Your task to perform on an android device: turn off notifications in google photos Image 0: 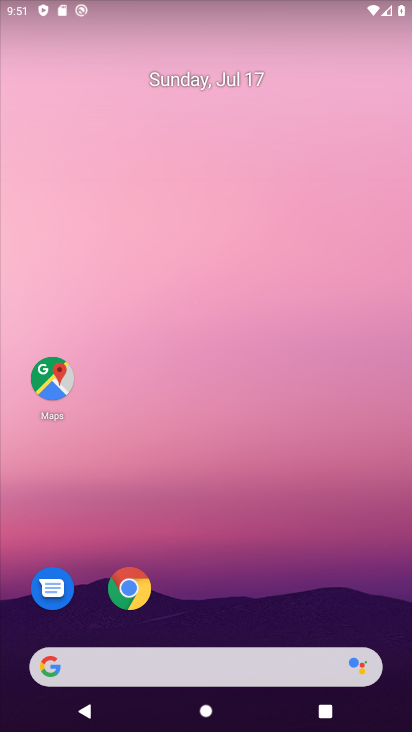
Step 0: drag from (273, 609) to (206, 153)
Your task to perform on an android device: turn off notifications in google photos Image 1: 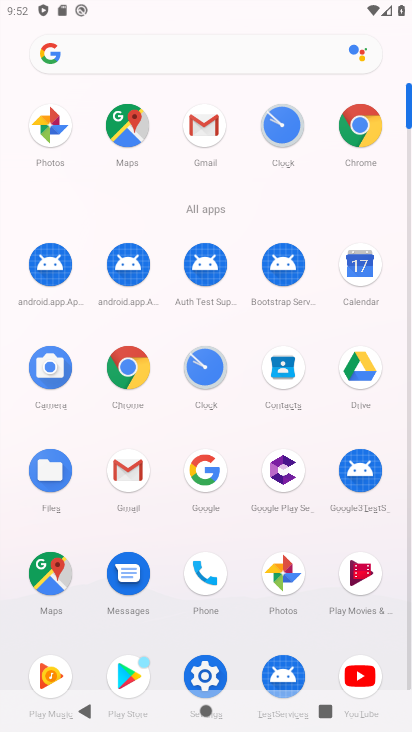
Step 1: click (47, 128)
Your task to perform on an android device: turn off notifications in google photos Image 2: 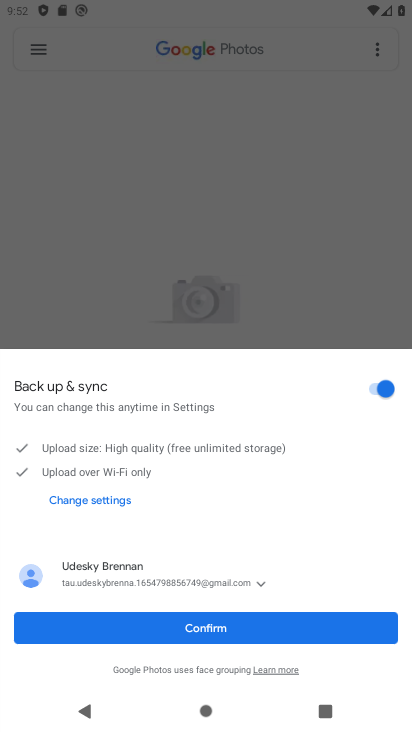
Step 2: click (40, 51)
Your task to perform on an android device: turn off notifications in google photos Image 3: 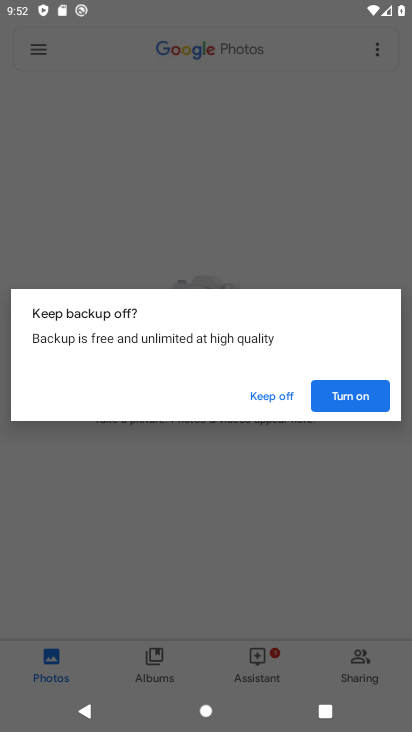
Step 3: click (360, 396)
Your task to perform on an android device: turn off notifications in google photos Image 4: 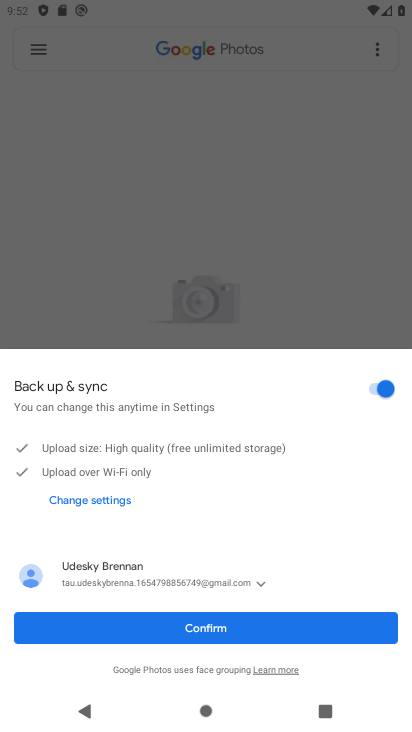
Step 4: click (323, 624)
Your task to perform on an android device: turn off notifications in google photos Image 5: 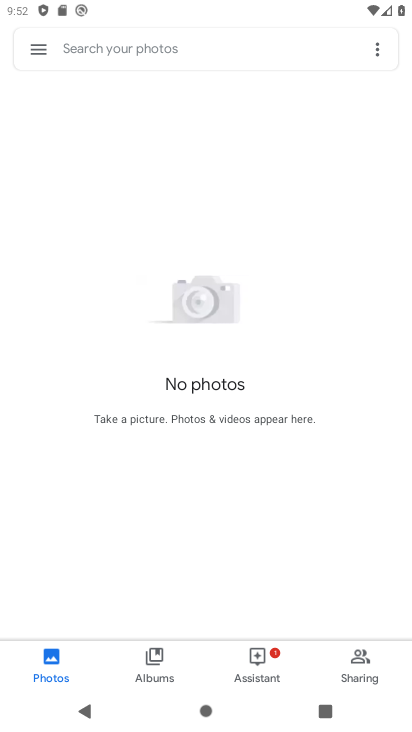
Step 5: click (42, 53)
Your task to perform on an android device: turn off notifications in google photos Image 6: 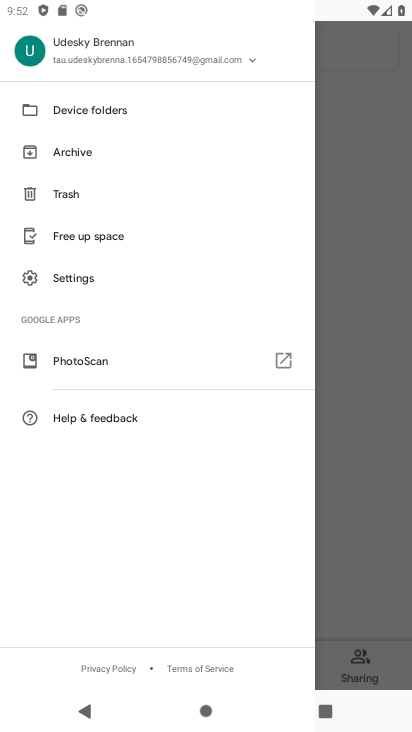
Step 6: click (86, 286)
Your task to perform on an android device: turn off notifications in google photos Image 7: 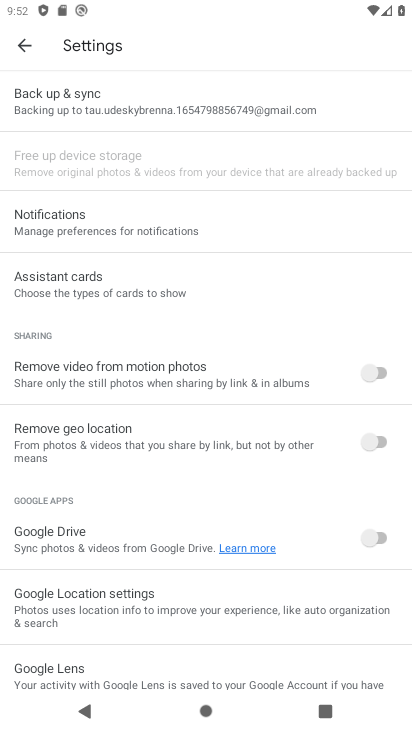
Step 7: click (107, 232)
Your task to perform on an android device: turn off notifications in google photos Image 8: 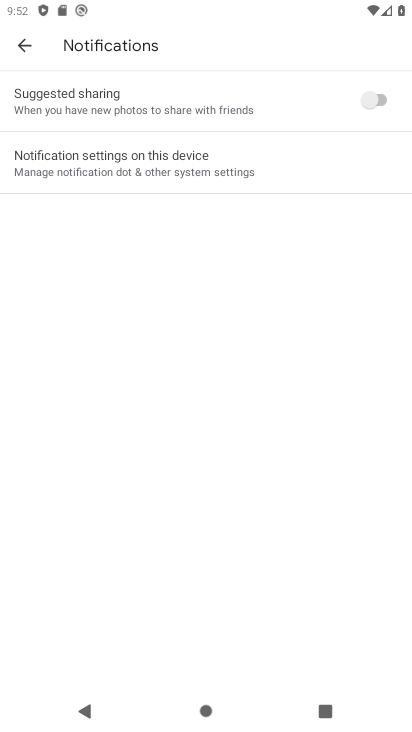
Step 8: click (234, 154)
Your task to perform on an android device: turn off notifications in google photos Image 9: 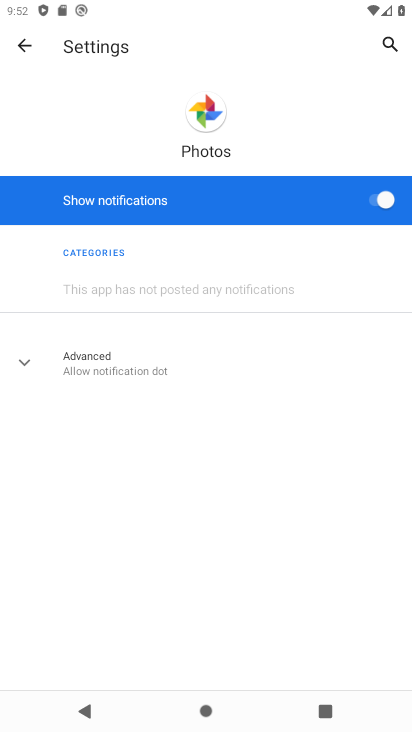
Step 9: click (382, 187)
Your task to perform on an android device: turn off notifications in google photos Image 10: 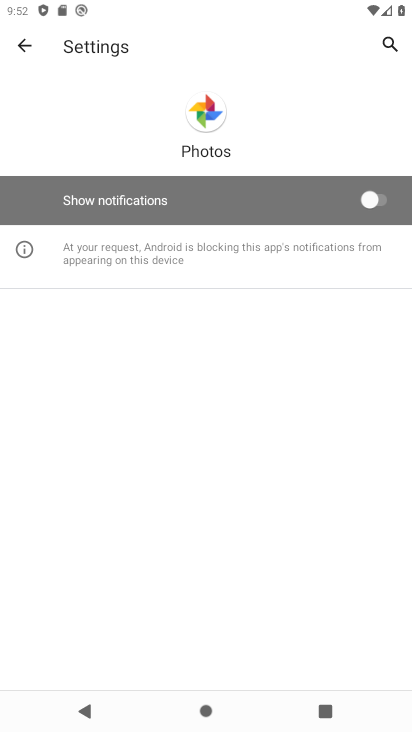
Step 10: task complete